Your task to perform on an android device: When is my next appointment? Image 0: 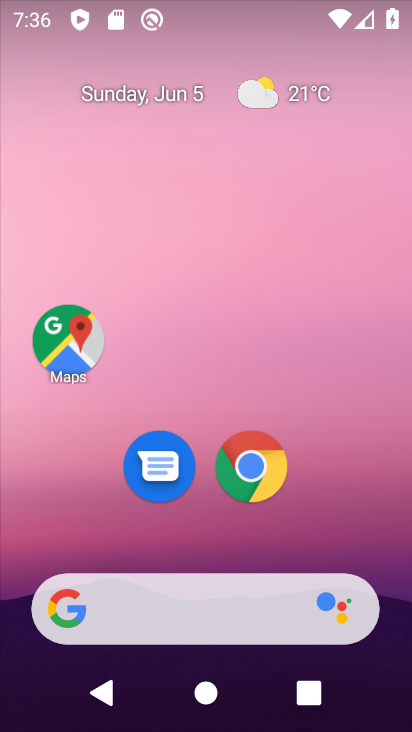
Step 0: drag from (166, 541) to (246, 31)
Your task to perform on an android device: When is my next appointment? Image 1: 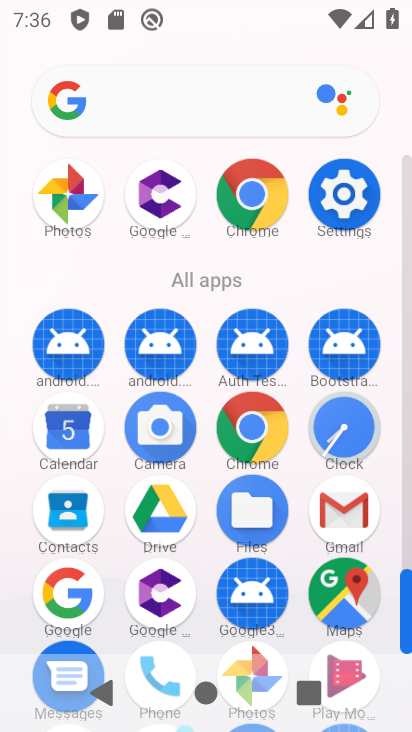
Step 1: click (53, 444)
Your task to perform on an android device: When is my next appointment? Image 2: 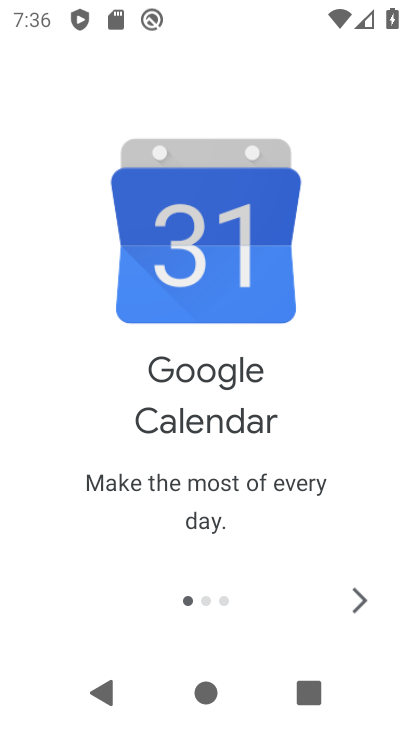
Step 2: click (366, 594)
Your task to perform on an android device: When is my next appointment? Image 3: 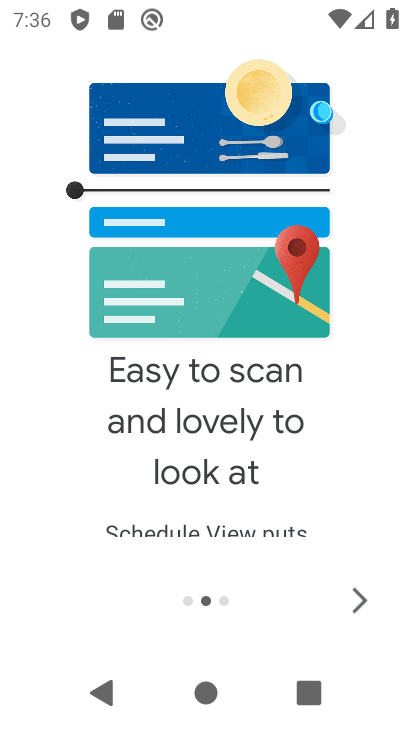
Step 3: click (367, 594)
Your task to perform on an android device: When is my next appointment? Image 4: 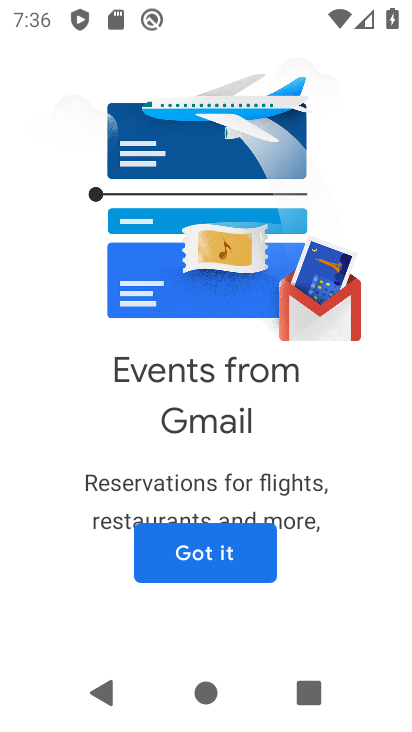
Step 4: click (248, 557)
Your task to perform on an android device: When is my next appointment? Image 5: 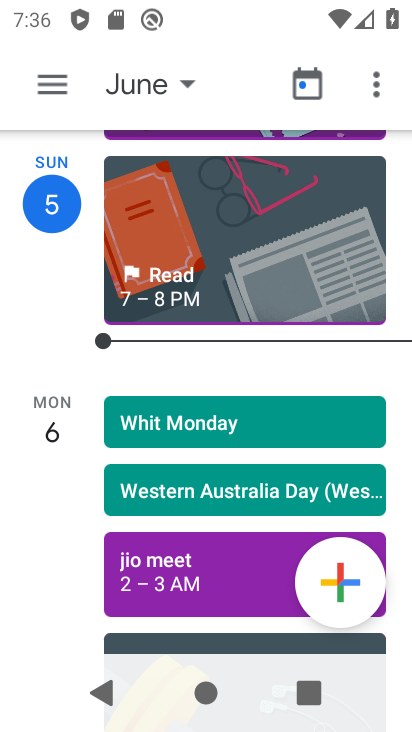
Step 5: click (156, 576)
Your task to perform on an android device: When is my next appointment? Image 6: 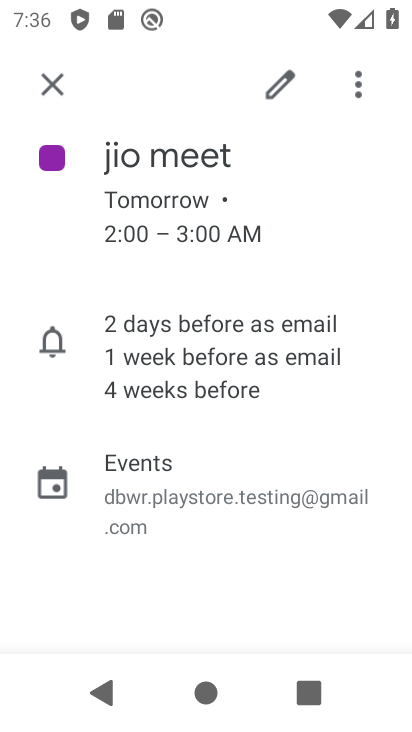
Step 6: task complete